Your task to perform on an android device: turn off smart reply in the gmail app Image 0: 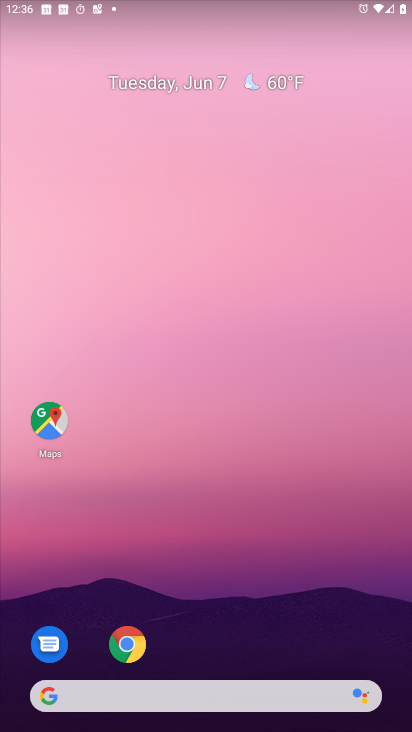
Step 0: drag from (127, 729) to (195, 73)
Your task to perform on an android device: turn off smart reply in the gmail app Image 1: 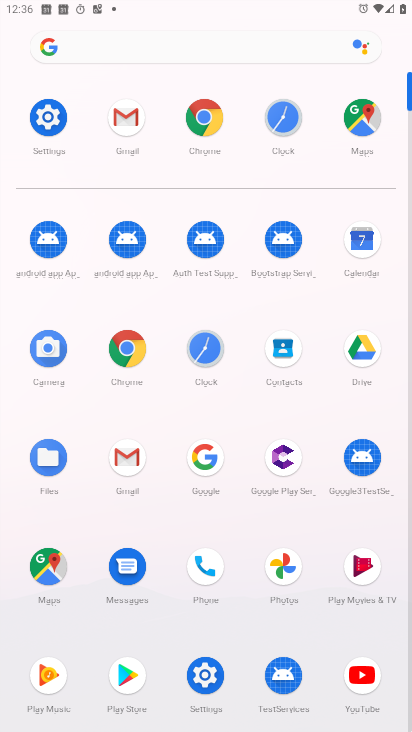
Step 1: click (131, 470)
Your task to perform on an android device: turn off smart reply in the gmail app Image 2: 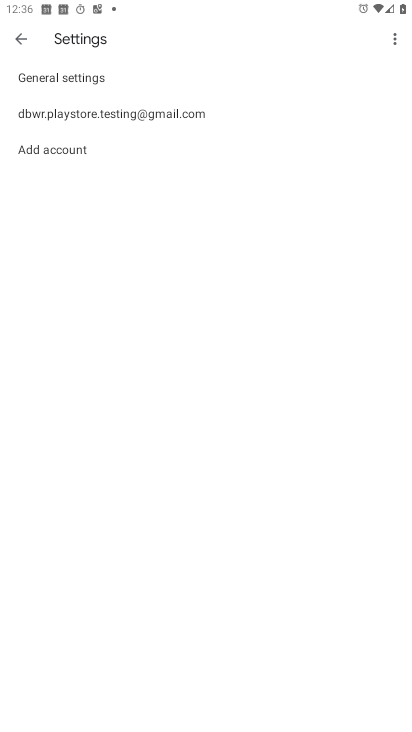
Step 2: click (25, 114)
Your task to perform on an android device: turn off smart reply in the gmail app Image 3: 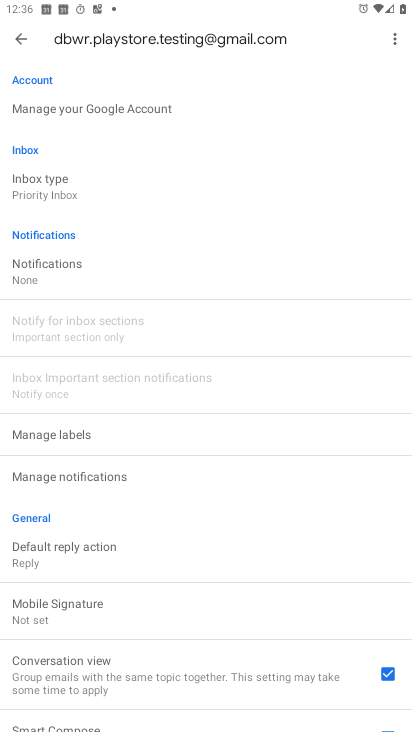
Step 3: drag from (191, 688) to (222, 263)
Your task to perform on an android device: turn off smart reply in the gmail app Image 4: 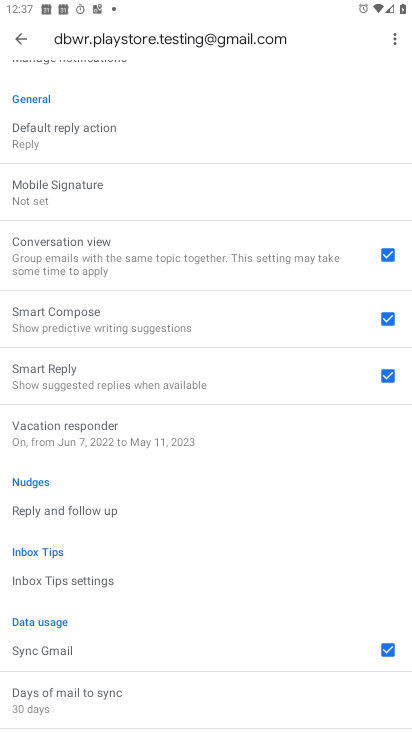
Step 4: click (384, 379)
Your task to perform on an android device: turn off smart reply in the gmail app Image 5: 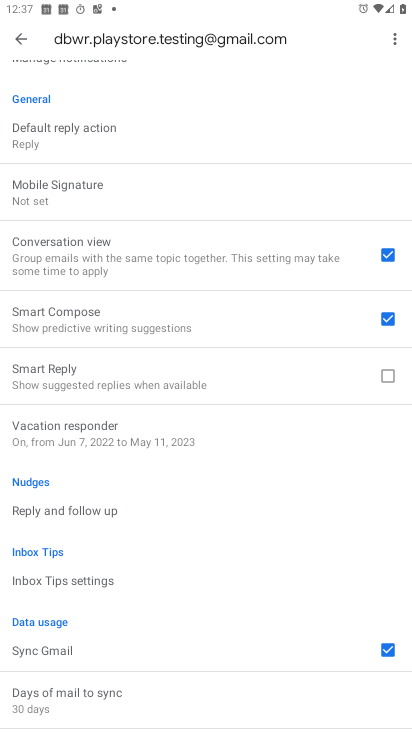
Step 5: task complete